Your task to perform on an android device: check out phone information Image 0: 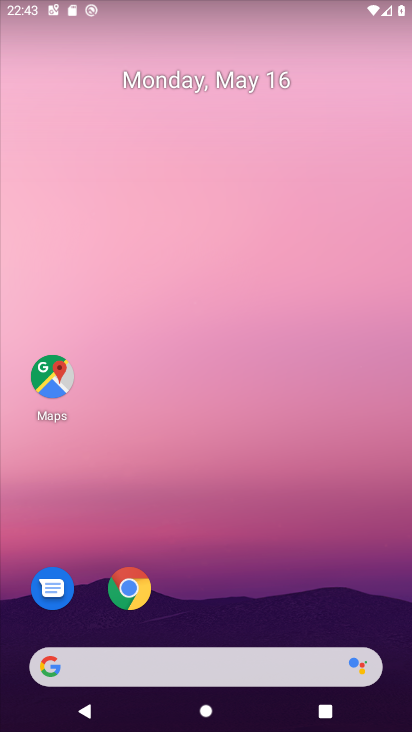
Step 0: drag from (222, 631) to (275, 44)
Your task to perform on an android device: check out phone information Image 1: 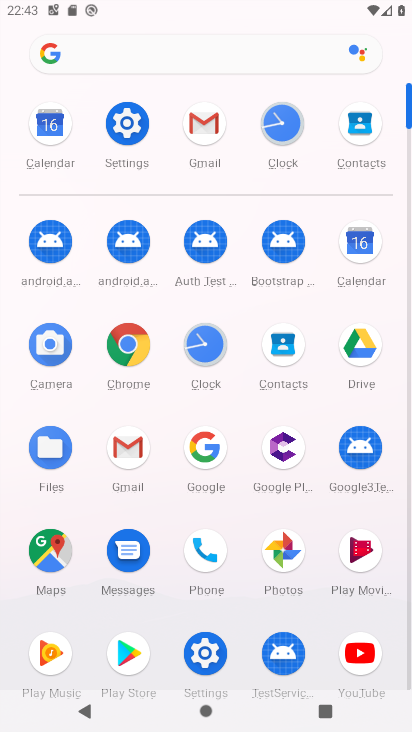
Step 1: click (125, 118)
Your task to perform on an android device: check out phone information Image 2: 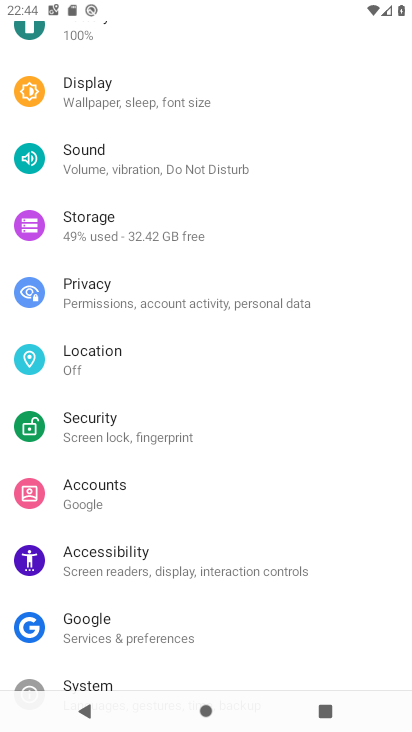
Step 2: drag from (180, 661) to (224, 135)
Your task to perform on an android device: check out phone information Image 3: 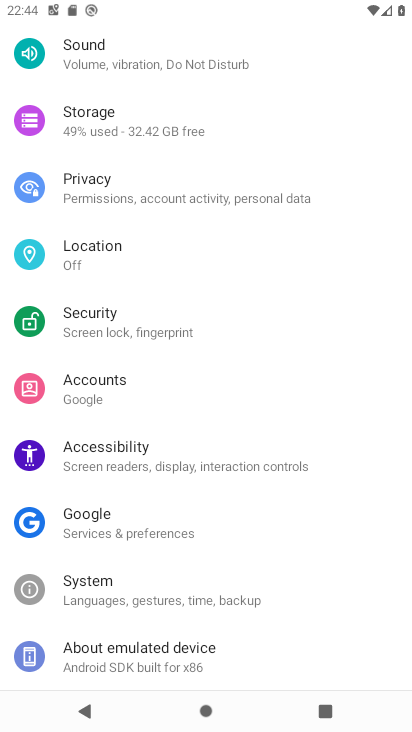
Step 3: click (210, 652)
Your task to perform on an android device: check out phone information Image 4: 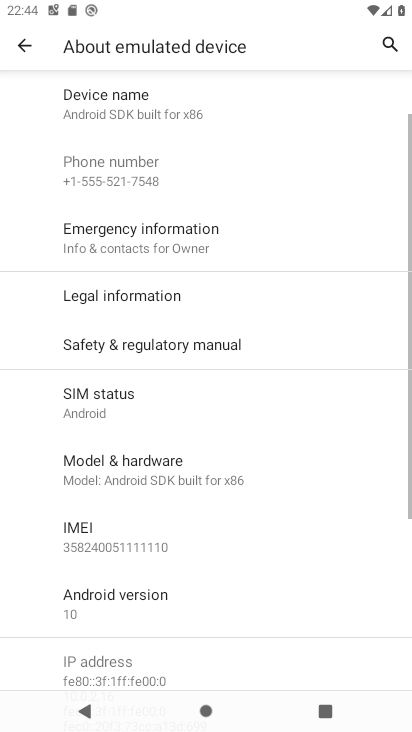
Step 4: task complete